Your task to perform on an android device: open app "Messenger Lite" Image 0: 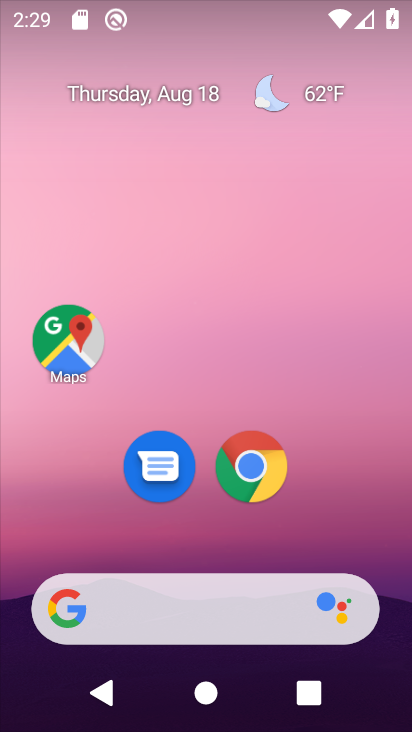
Step 0: drag from (238, 628) to (223, 84)
Your task to perform on an android device: open app "Messenger Lite" Image 1: 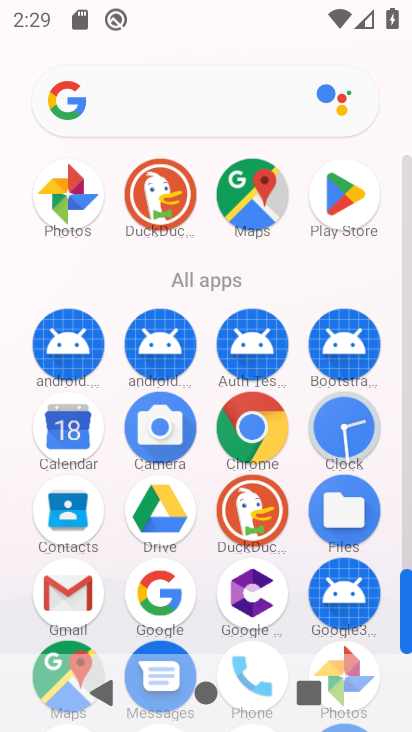
Step 1: click (363, 201)
Your task to perform on an android device: open app "Messenger Lite" Image 2: 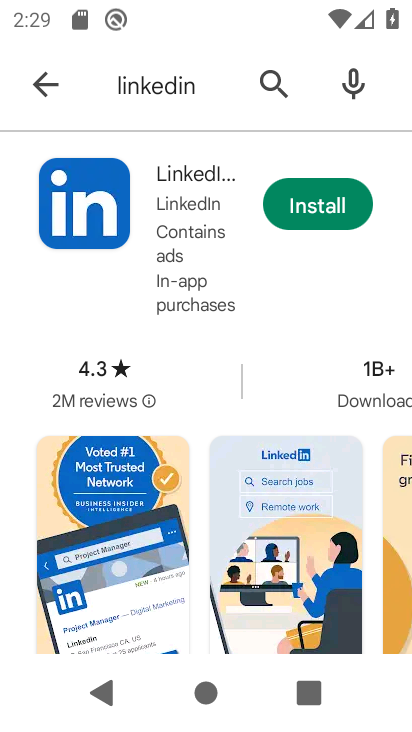
Step 2: click (269, 67)
Your task to perform on an android device: open app "Messenger Lite" Image 3: 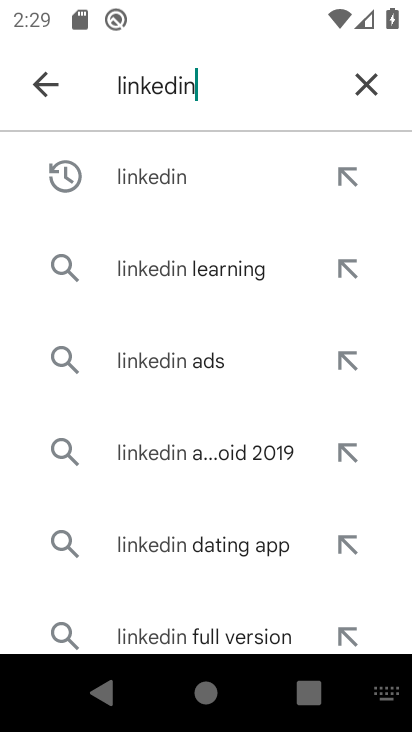
Step 3: click (358, 78)
Your task to perform on an android device: open app "Messenger Lite" Image 4: 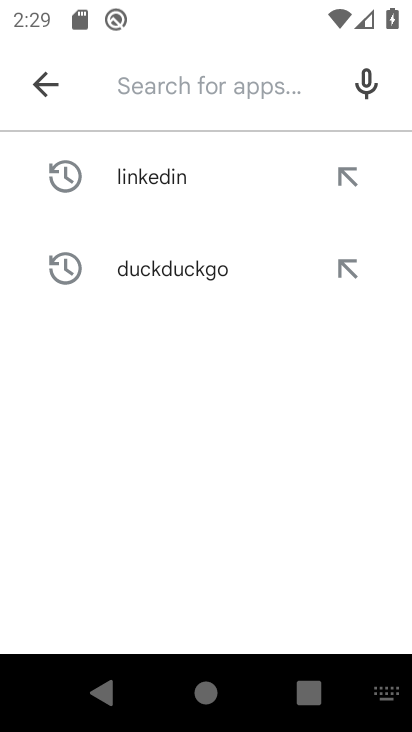
Step 4: type "messenger lite"
Your task to perform on an android device: open app "Messenger Lite" Image 5: 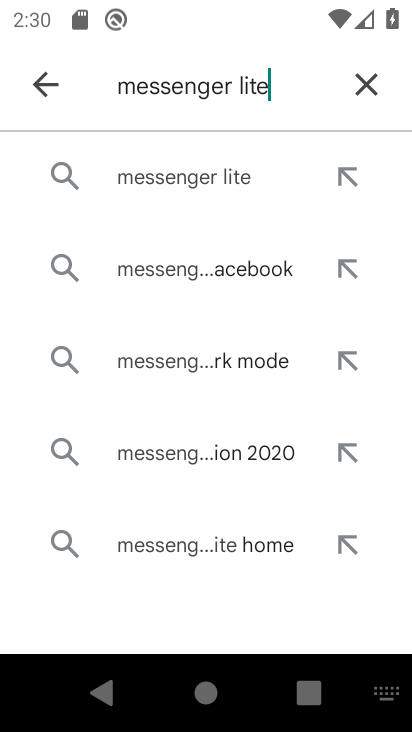
Step 5: click (221, 179)
Your task to perform on an android device: open app "Messenger Lite" Image 6: 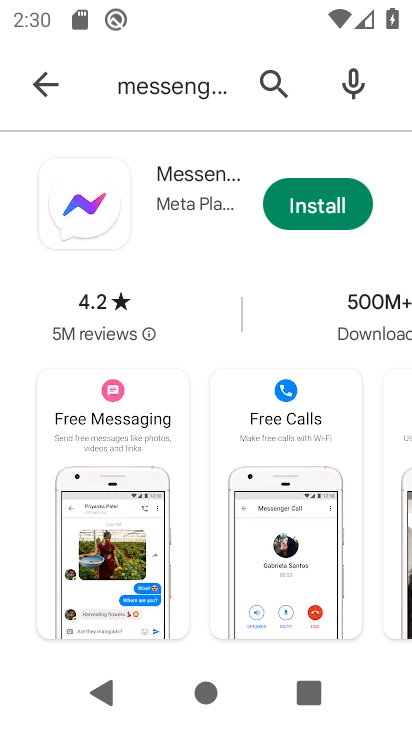
Step 6: task complete